Your task to perform on an android device: Open Wikipedia Image 0: 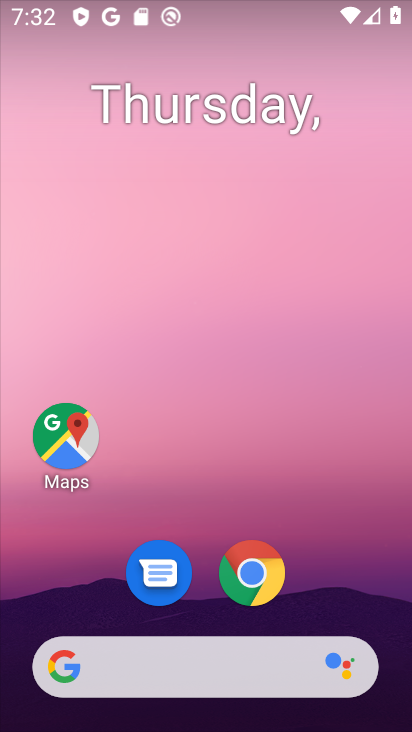
Step 0: drag from (331, 595) to (339, 162)
Your task to perform on an android device: Open Wikipedia Image 1: 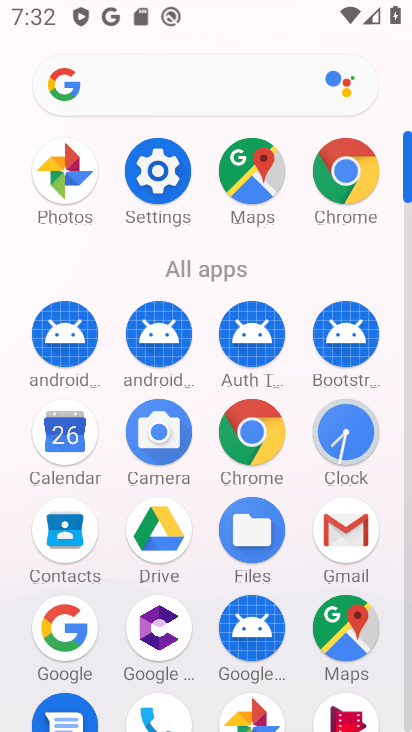
Step 1: click (233, 419)
Your task to perform on an android device: Open Wikipedia Image 2: 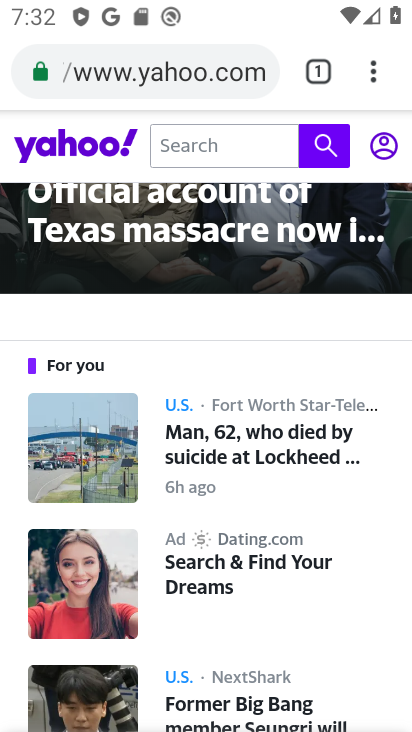
Step 2: click (158, 68)
Your task to perform on an android device: Open Wikipedia Image 3: 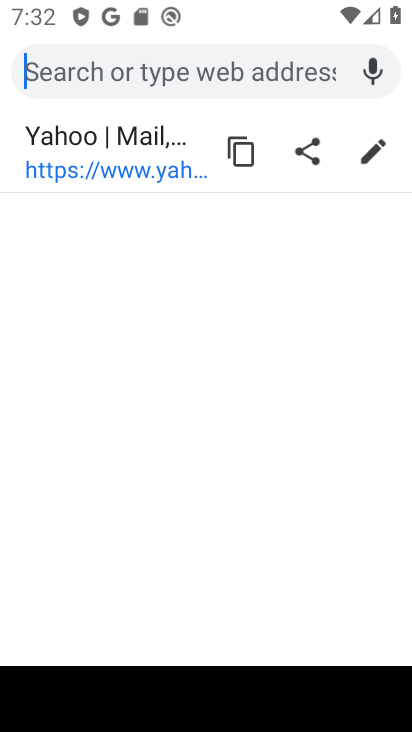
Step 3: type "wikipedia"
Your task to perform on an android device: Open Wikipedia Image 4: 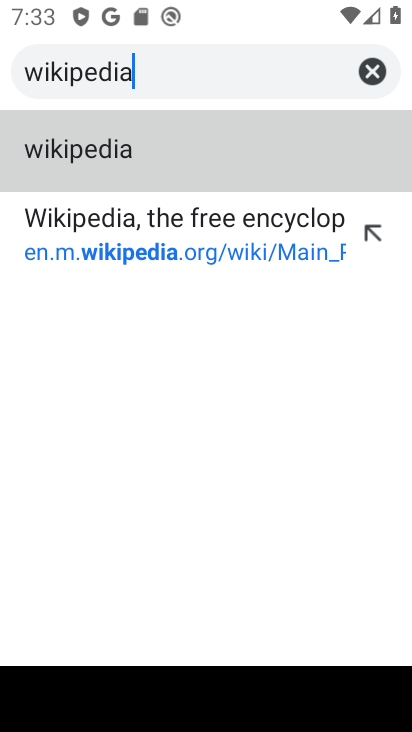
Step 4: click (110, 152)
Your task to perform on an android device: Open Wikipedia Image 5: 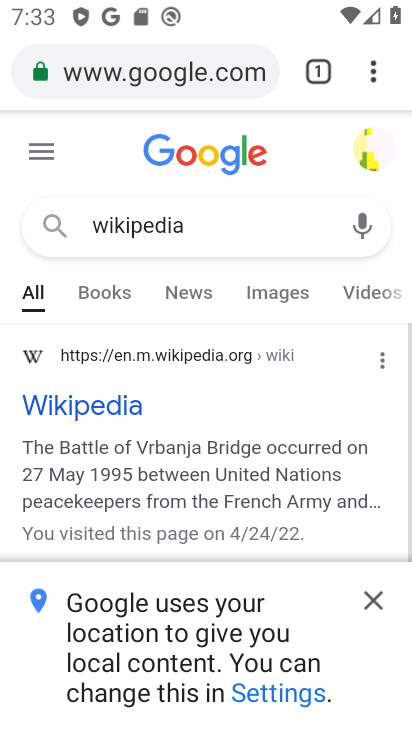
Step 5: click (101, 411)
Your task to perform on an android device: Open Wikipedia Image 6: 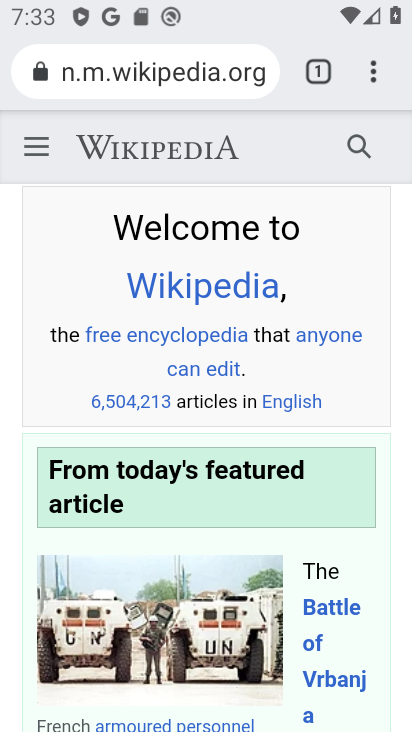
Step 6: task complete